Your task to perform on an android device: Search for pizza restaurants on Maps Image 0: 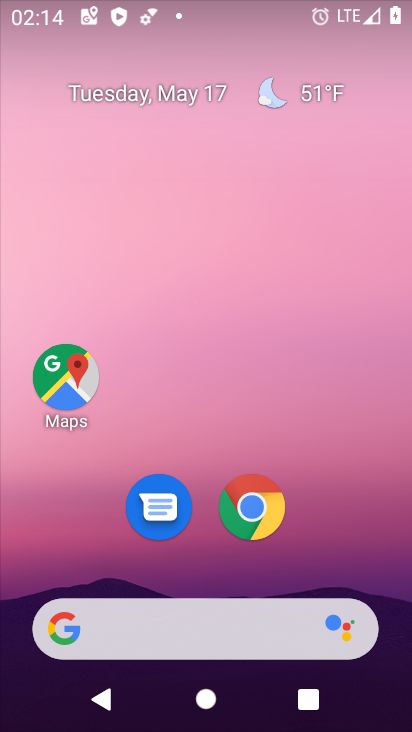
Step 0: click (60, 383)
Your task to perform on an android device: Search for pizza restaurants on Maps Image 1: 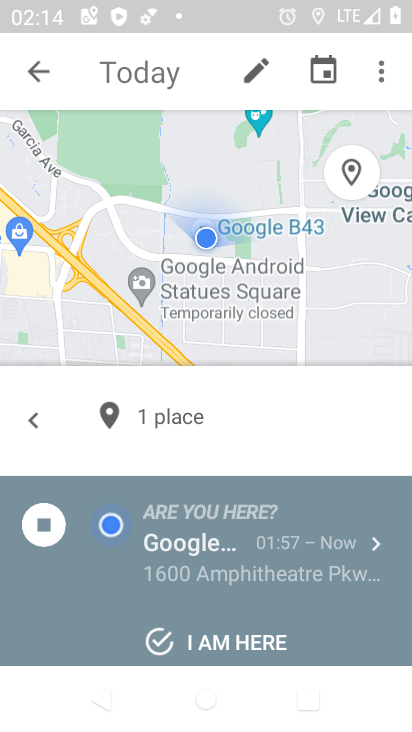
Step 1: click (45, 62)
Your task to perform on an android device: Search for pizza restaurants on Maps Image 2: 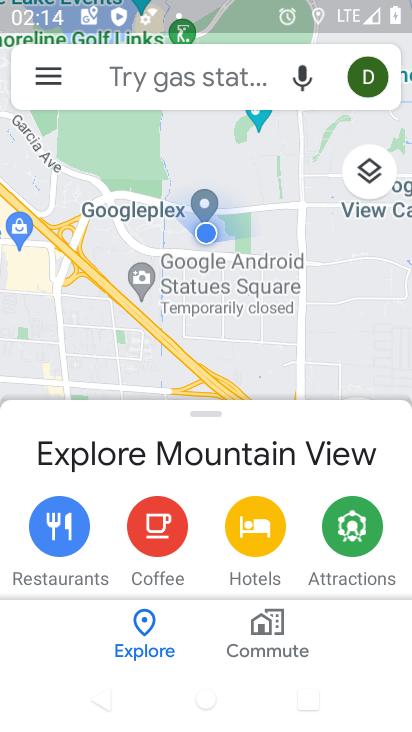
Step 2: click (156, 62)
Your task to perform on an android device: Search for pizza restaurants on Maps Image 3: 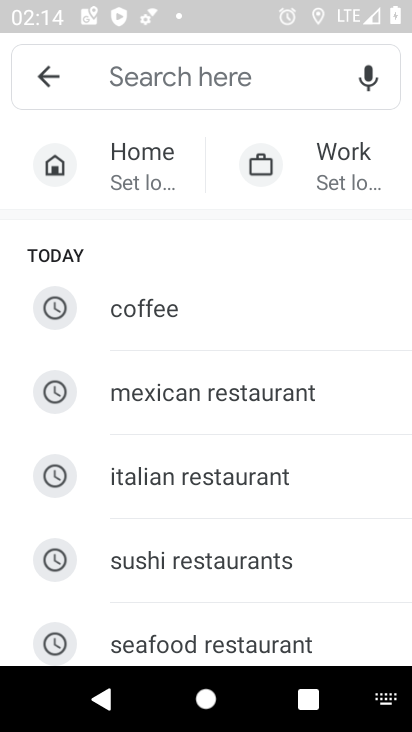
Step 3: type "pizza restaurant"
Your task to perform on an android device: Search for pizza restaurants on Maps Image 4: 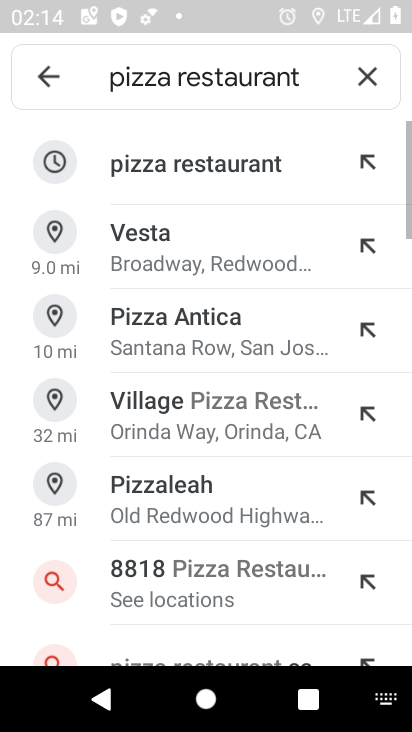
Step 4: click (166, 179)
Your task to perform on an android device: Search for pizza restaurants on Maps Image 5: 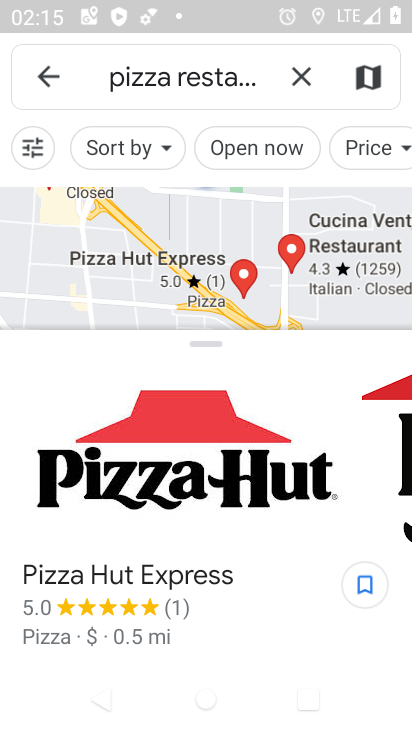
Step 5: task complete